Your task to perform on an android device: Open calendar and show me the fourth week of next month Image 0: 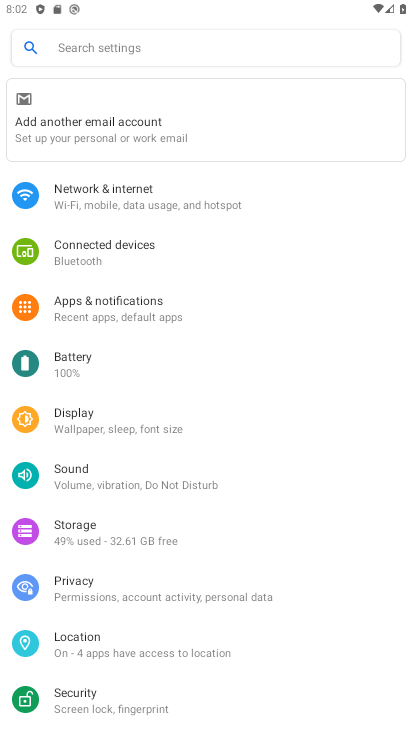
Step 0: press home button
Your task to perform on an android device: Open calendar and show me the fourth week of next month Image 1: 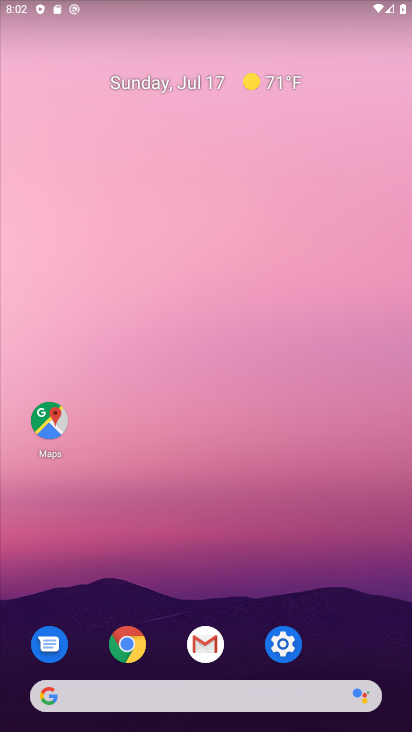
Step 1: drag from (196, 437) to (183, 58)
Your task to perform on an android device: Open calendar and show me the fourth week of next month Image 2: 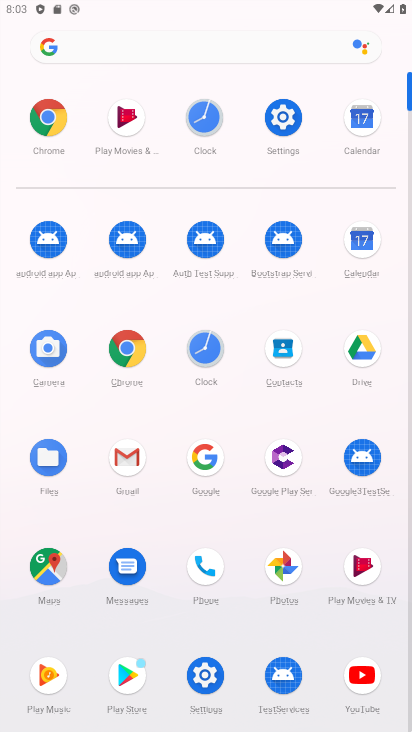
Step 2: click (355, 251)
Your task to perform on an android device: Open calendar and show me the fourth week of next month Image 3: 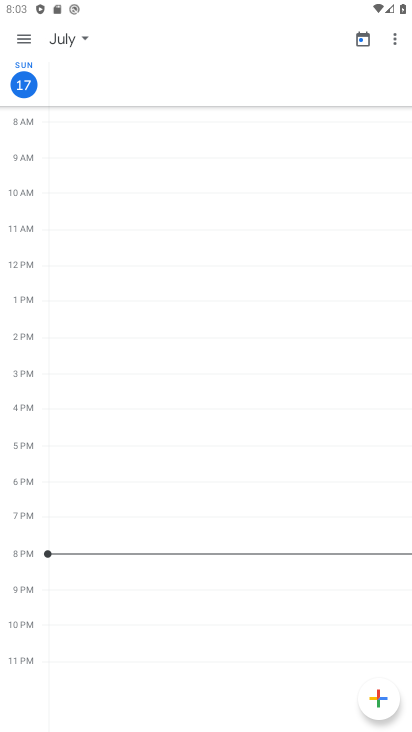
Step 3: click (21, 37)
Your task to perform on an android device: Open calendar and show me the fourth week of next month Image 4: 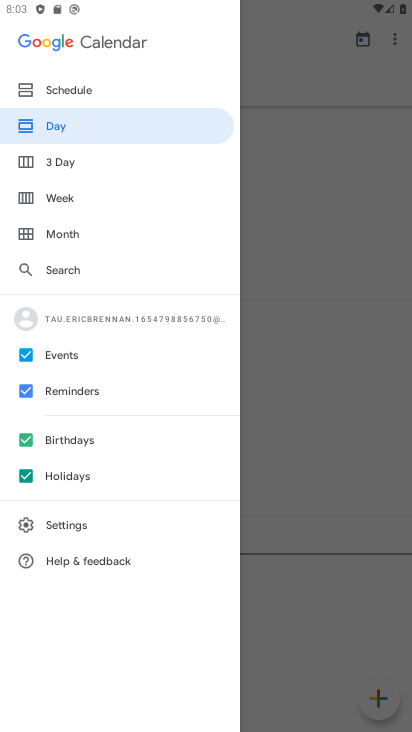
Step 4: click (53, 251)
Your task to perform on an android device: Open calendar and show me the fourth week of next month Image 5: 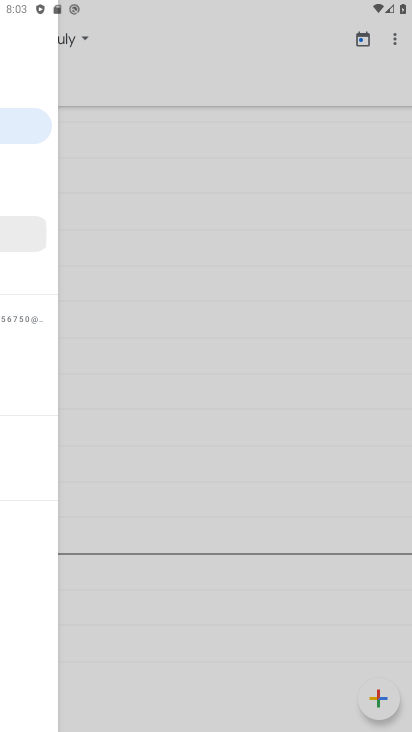
Step 5: click (61, 237)
Your task to perform on an android device: Open calendar and show me the fourth week of next month Image 6: 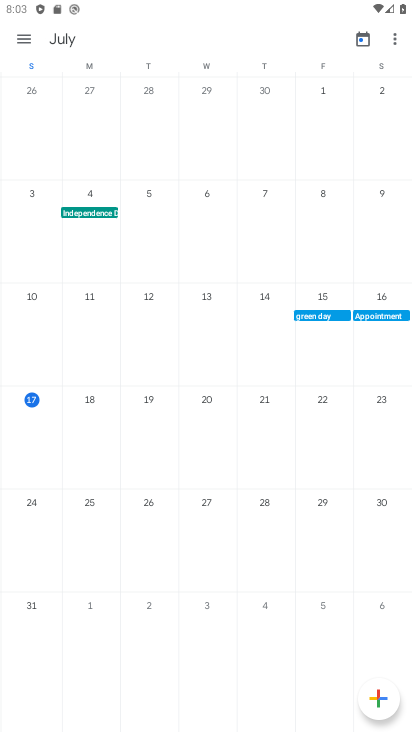
Step 6: drag from (309, 379) to (20, 465)
Your task to perform on an android device: Open calendar and show me the fourth week of next month Image 7: 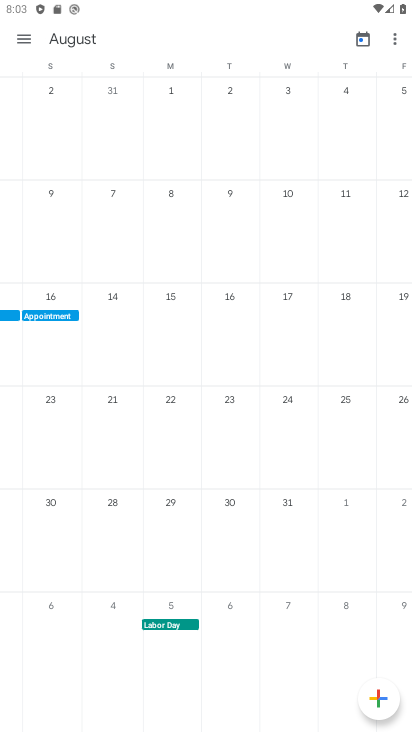
Step 7: click (103, 439)
Your task to perform on an android device: Open calendar and show me the fourth week of next month Image 8: 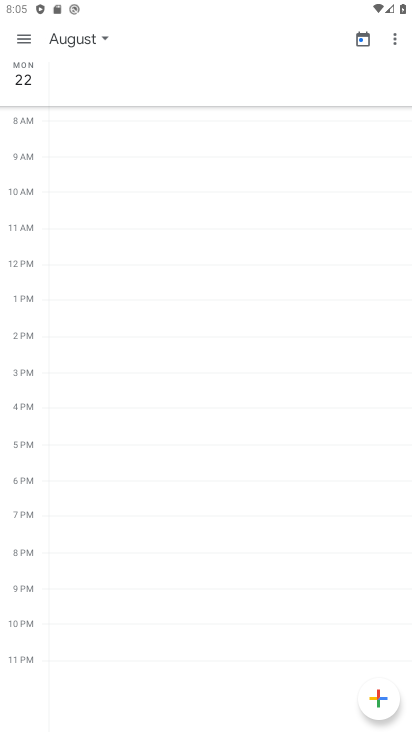
Step 8: task complete